Your task to perform on an android device: Go to Android settings Image 0: 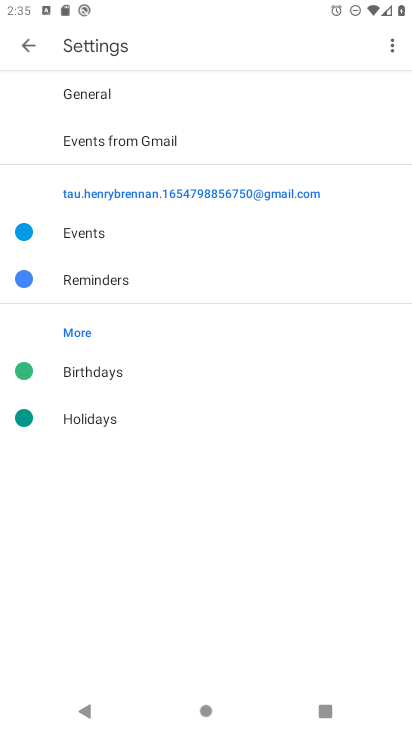
Step 0: press home button
Your task to perform on an android device: Go to Android settings Image 1: 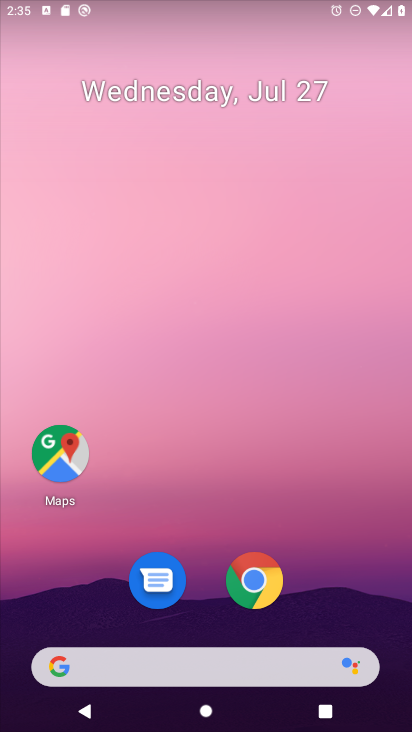
Step 1: drag from (278, 666) to (190, 155)
Your task to perform on an android device: Go to Android settings Image 2: 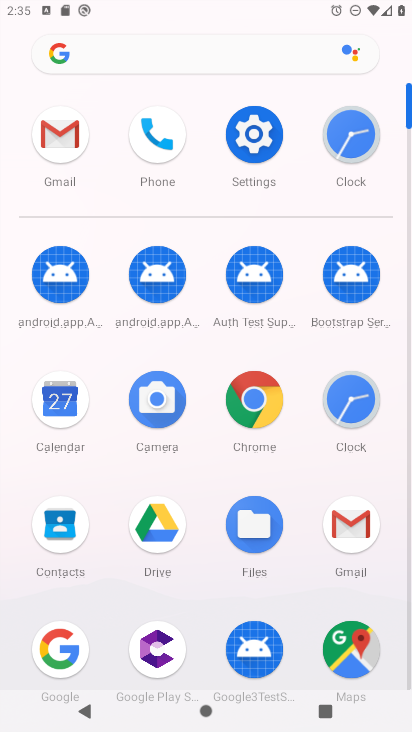
Step 2: click (255, 154)
Your task to perform on an android device: Go to Android settings Image 3: 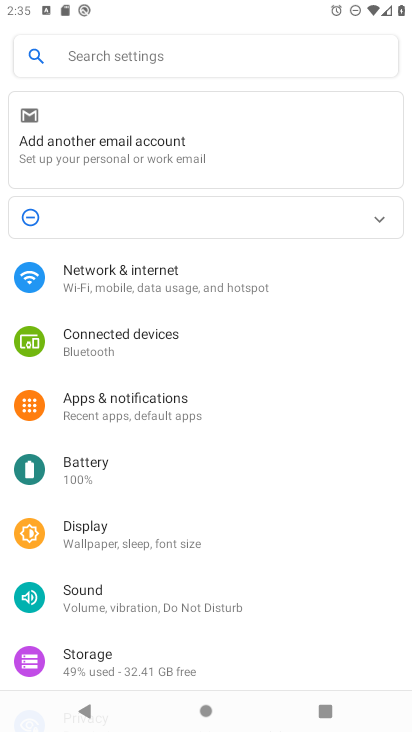
Step 3: click (106, 51)
Your task to perform on an android device: Go to Android settings Image 4: 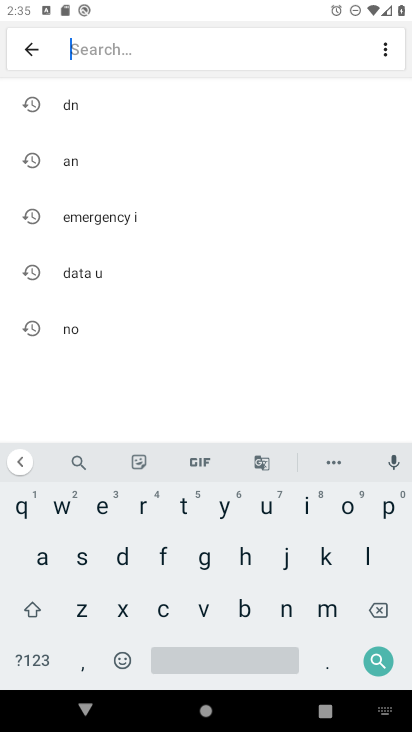
Step 4: click (35, 559)
Your task to perform on an android device: Go to Android settings Image 5: 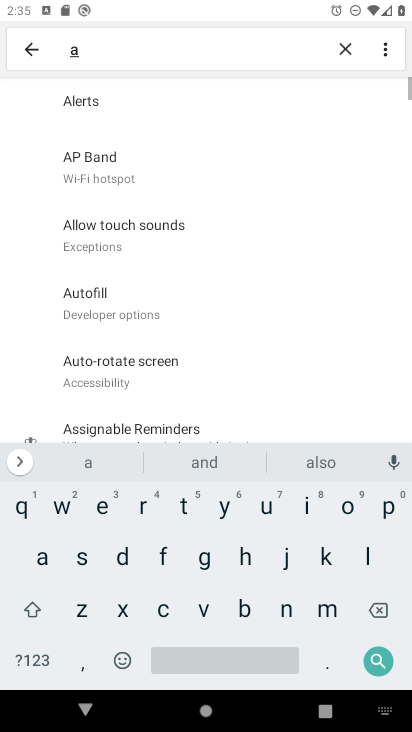
Step 5: click (279, 610)
Your task to perform on an android device: Go to Android settings Image 6: 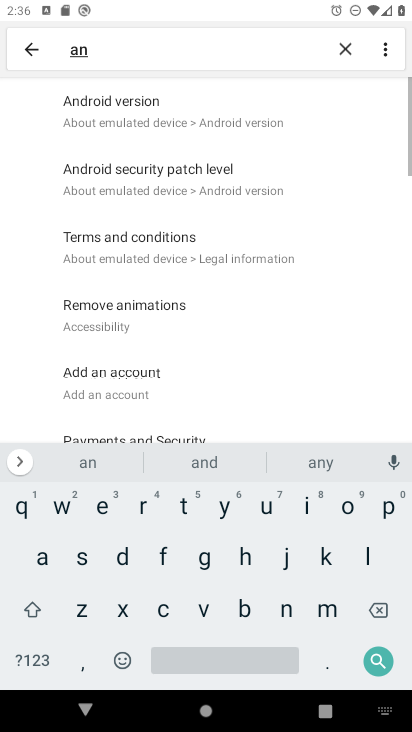
Step 6: click (155, 120)
Your task to perform on an android device: Go to Android settings Image 7: 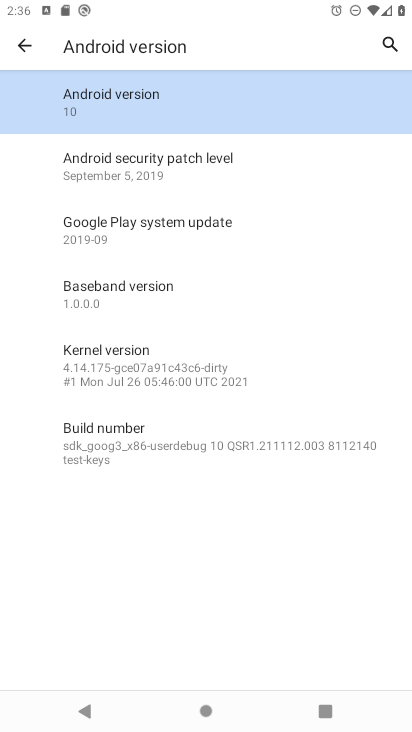
Step 7: click (145, 111)
Your task to perform on an android device: Go to Android settings Image 8: 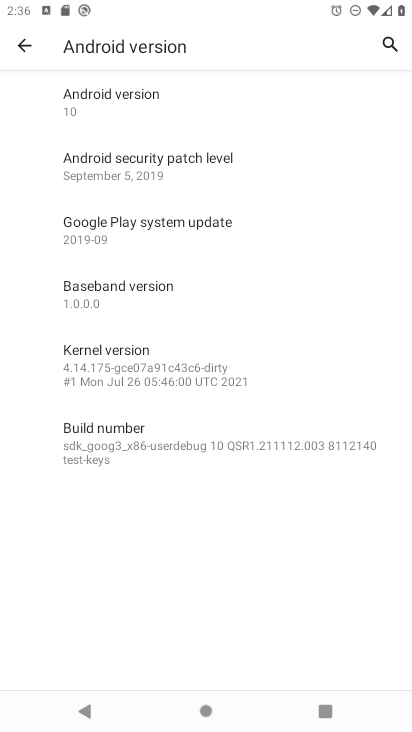
Step 8: task complete